Your task to perform on an android device: open device folders in google photos Image 0: 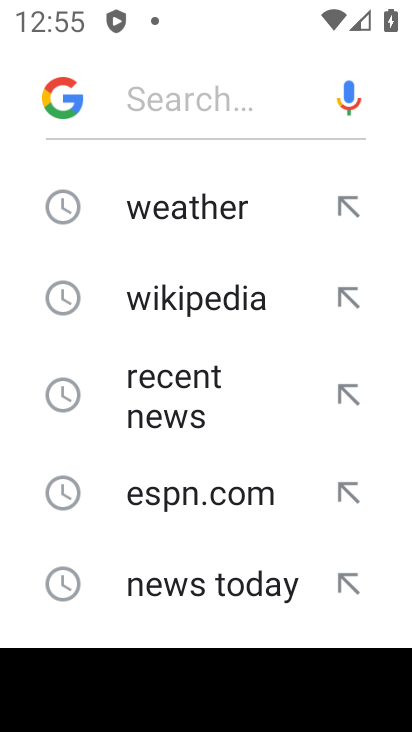
Step 0: press home button
Your task to perform on an android device: open device folders in google photos Image 1: 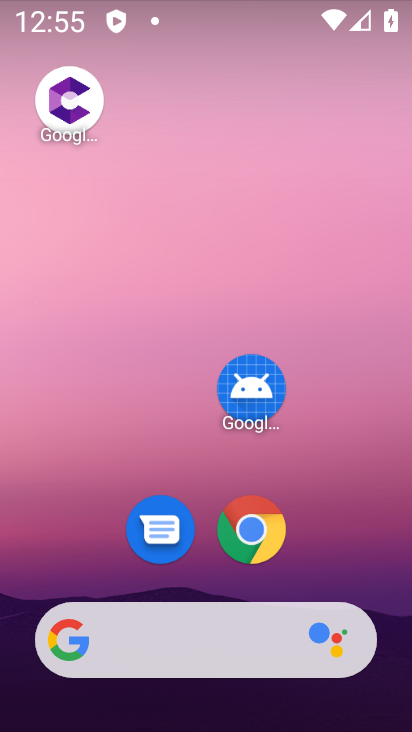
Step 1: drag from (261, 611) to (264, 52)
Your task to perform on an android device: open device folders in google photos Image 2: 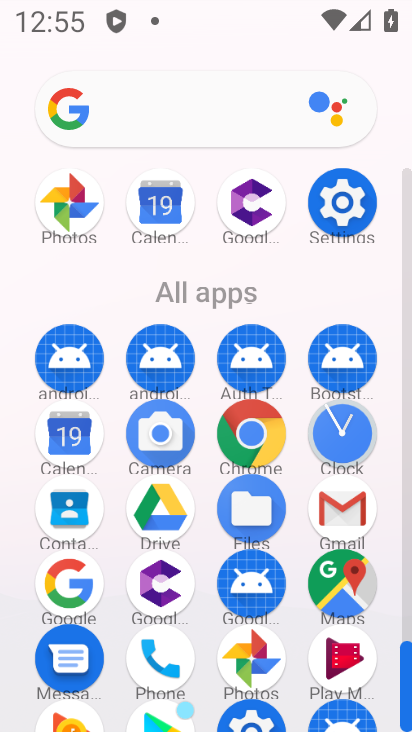
Step 2: drag from (196, 558) to (211, 174)
Your task to perform on an android device: open device folders in google photos Image 3: 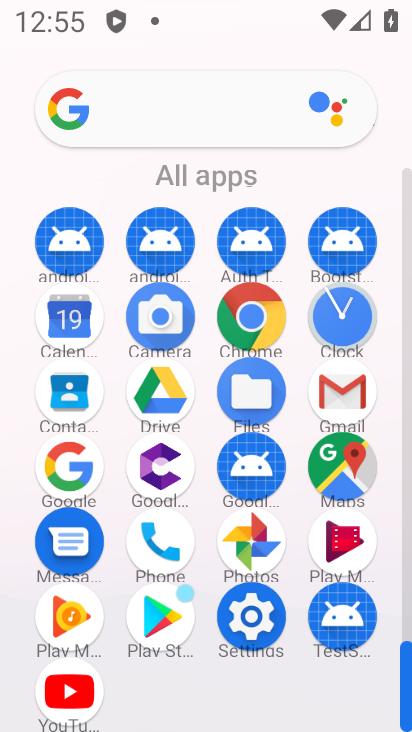
Step 3: click (266, 531)
Your task to perform on an android device: open device folders in google photos Image 4: 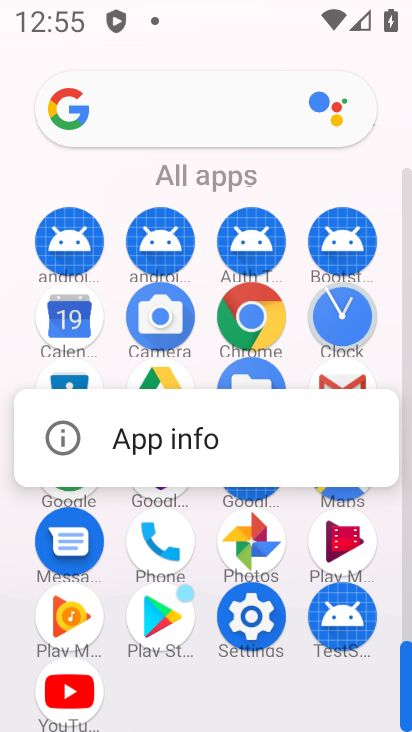
Step 4: click (260, 559)
Your task to perform on an android device: open device folders in google photos Image 5: 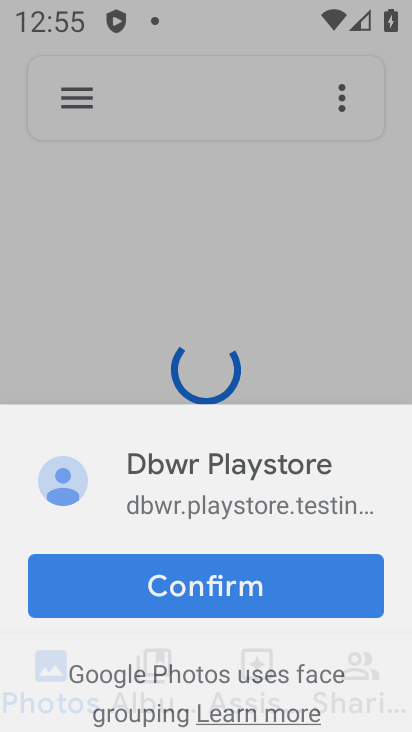
Step 5: click (79, 105)
Your task to perform on an android device: open device folders in google photos Image 6: 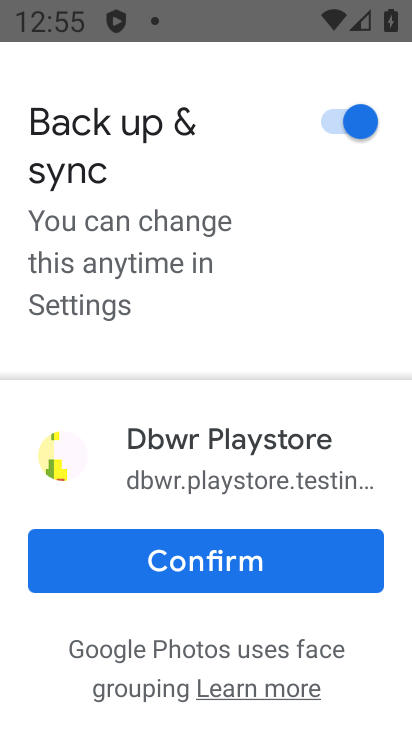
Step 6: click (219, 556)
Your task to perform on an android device: open device folders in google photos Image 7: 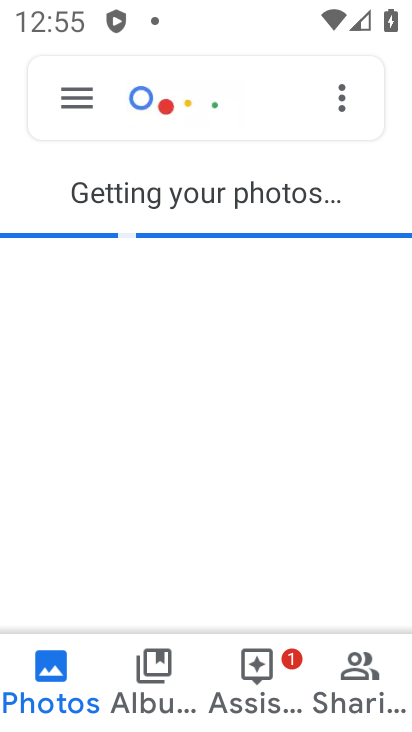
Step 7: click (82, 110)
Your task to perform on an android device: open device folders in google photos Image 8: 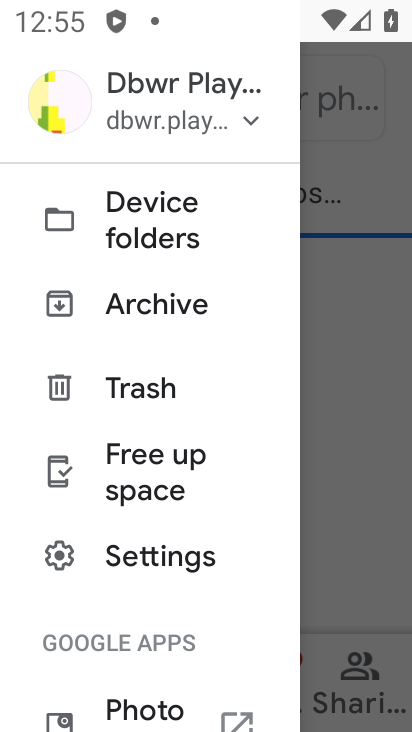
Step 8: click (173, 240)
Your task to perform on an android device: open device folders in google photos Image 9: 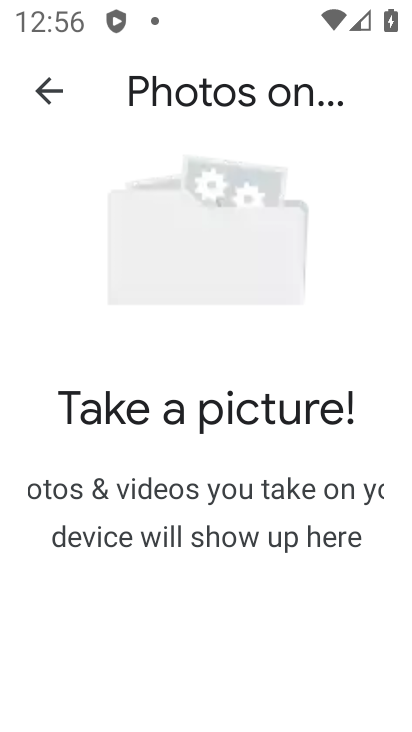
Step 9: task complete